Your task to perform on an android device: delete location history Image 0: 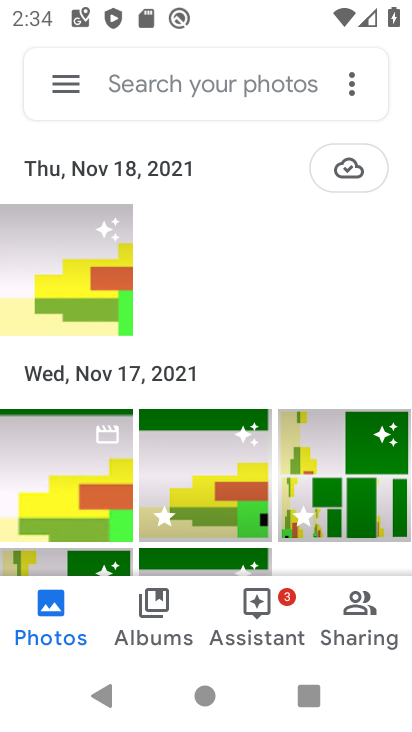
Step 0: press home button
Your task to perform on an android device: delete location history Image 1: 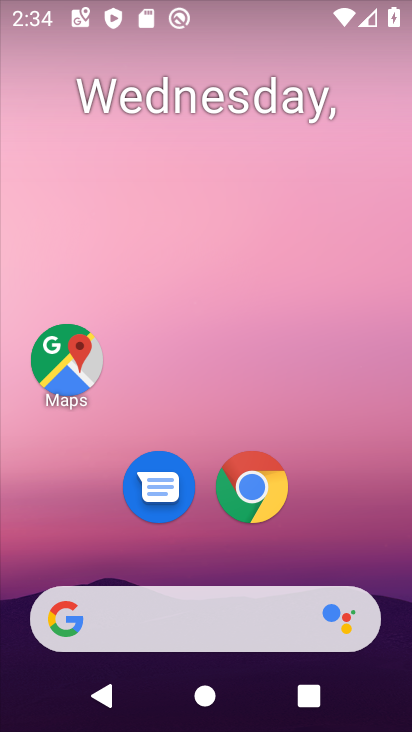
Step 1: drag from (363, 516) to (274, 172)
Your task to perform on an android device: delete location history Image 2: 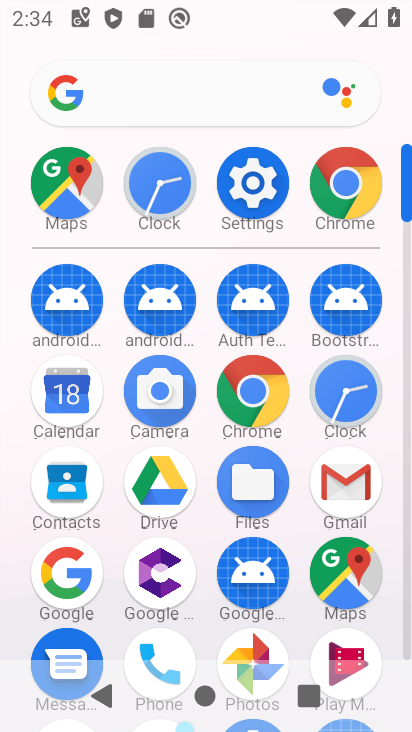
Step 2: click (63, 183)
Your task to perform on an android device: delete location history Image 3: 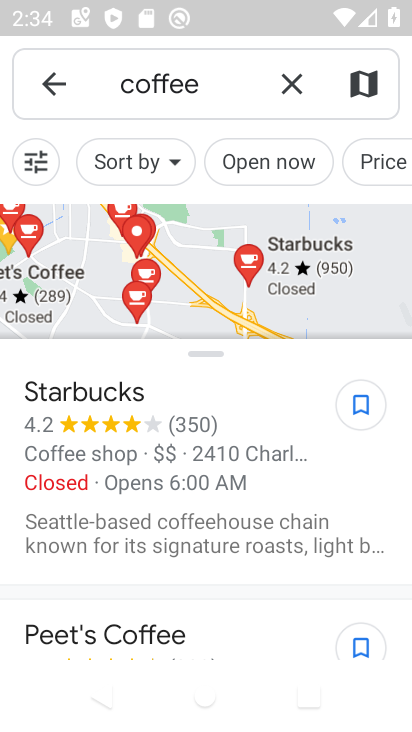
Step 3: click (291, 77)
Your task to perform on an android device: delete location history Image 4: 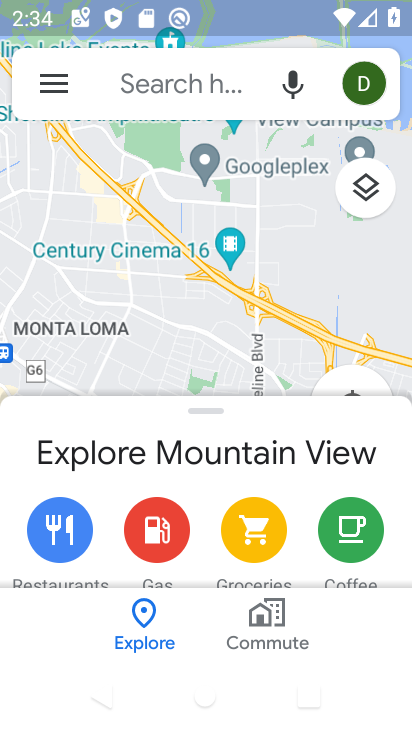
Step 4: click (38, 89)
Your task to perform on an android device: delete location history Image 5: 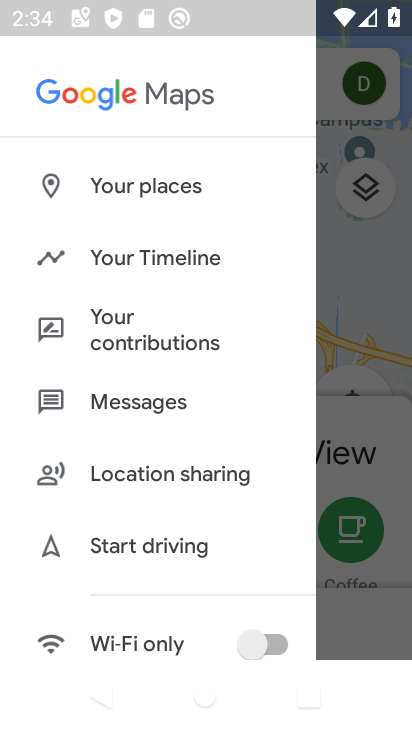
Step 5: click (122, 246)
Your task to perform on an android device: delete location history Image 6: 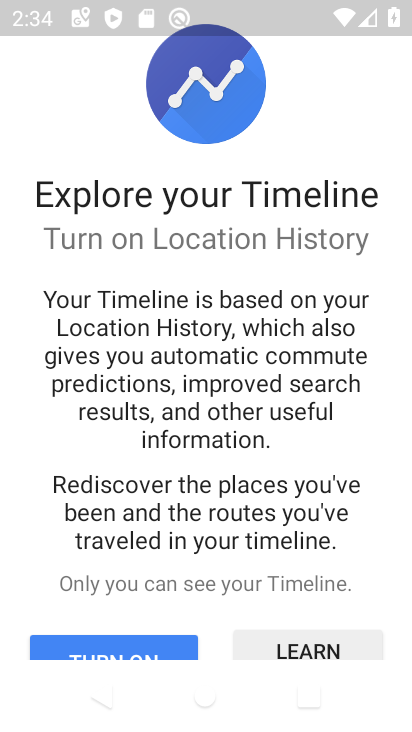
Step 6: drag from (297, 538) to (217, 153)
Your task to perform on an android device: delete location history Image 7: 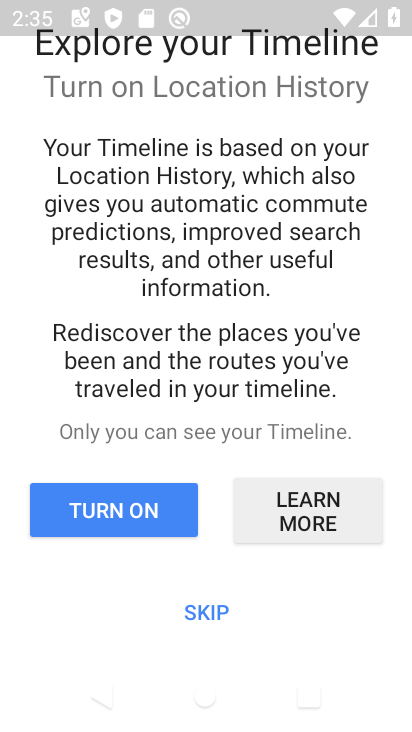
Step 7: click (130, 508)
Your task to perform on an android device: delete location history Image 8: 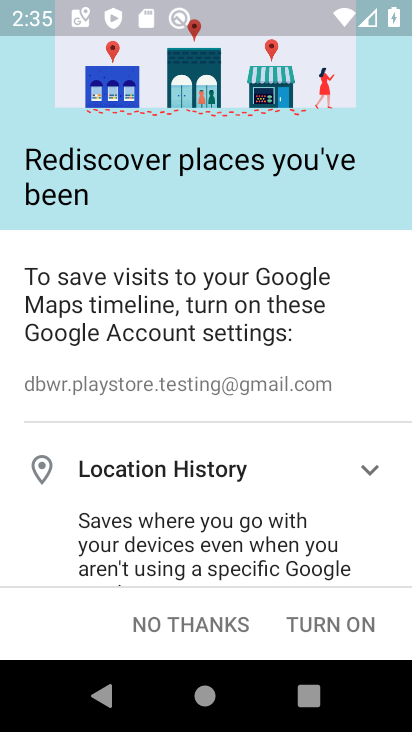
Step 8: drag from (288, 494) to (275, 14)
Your task to perform on an android device: delete location history Image 9: 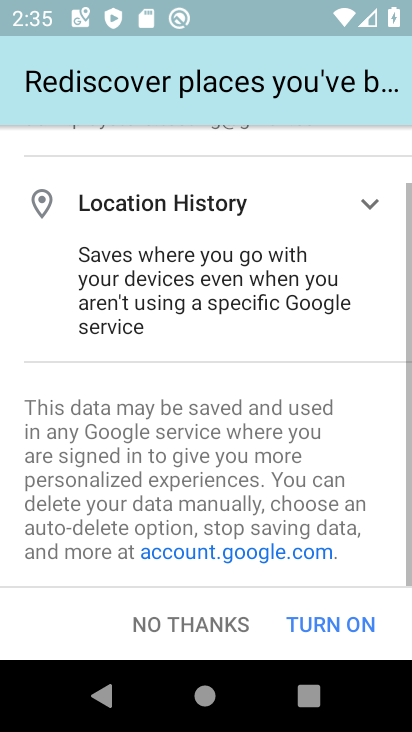
Step 9: drag from (298, 425) to (284, 194)
Your task to perform on an android device: delete location history Image 10: 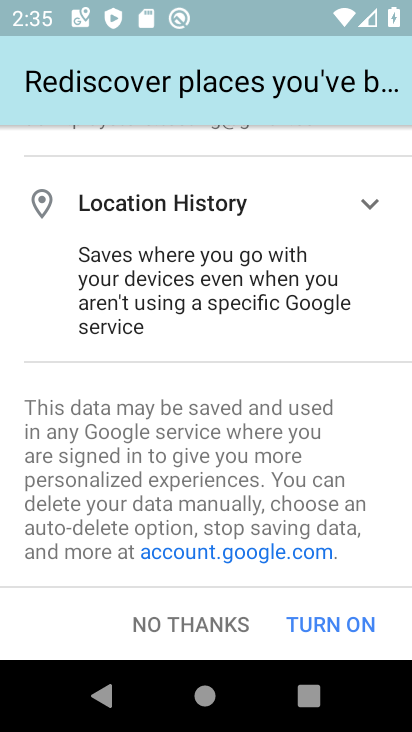
Step 10: click (196, 616)
Your task to perform on an android device: delete location history Image 11: 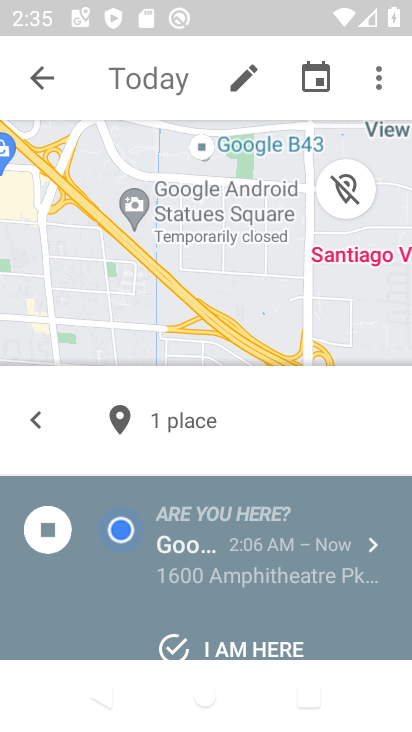
Step 11: click (377, 78)
Your task to perform on an android device: delete location history Image 12: 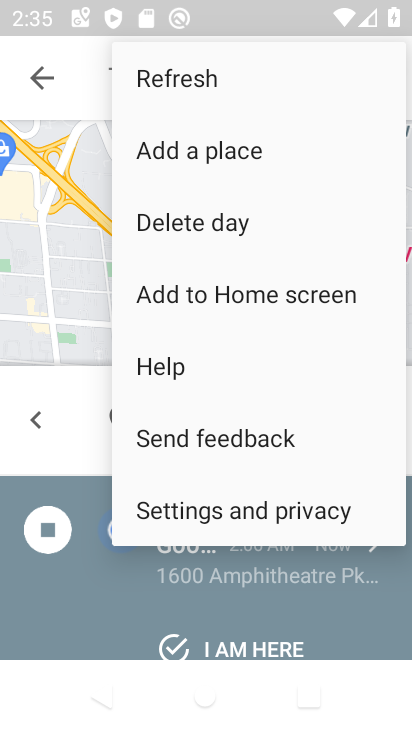
Step 12: click (268, 526)
Your task to perform on an android device: delete location history Image 13: 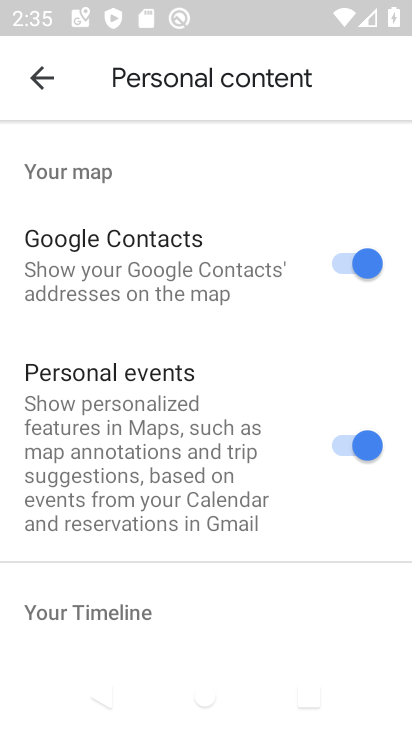
Step 13: drag from (293, 527) to (270, 168)
Your task to perform on an android device: delete location history Image 14: 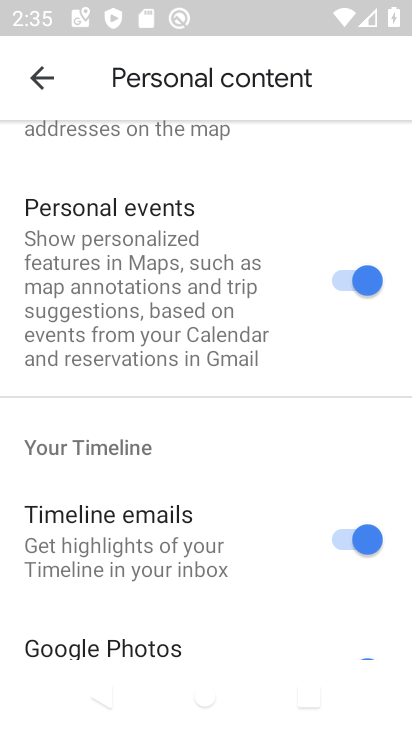
Step 14: drag from (259, 434) to (225, 14)
Your task to perform on an android device: delete location history Image 15: 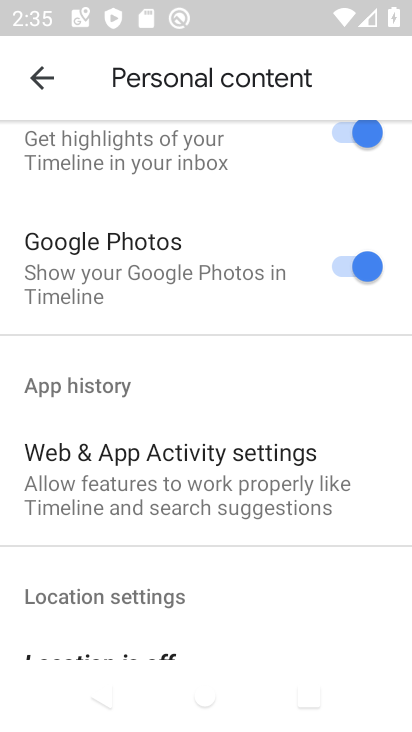
Step 15: drag from (198, 542) to (205, 182)
Your task to perform on an android device: delete location history Image 16: 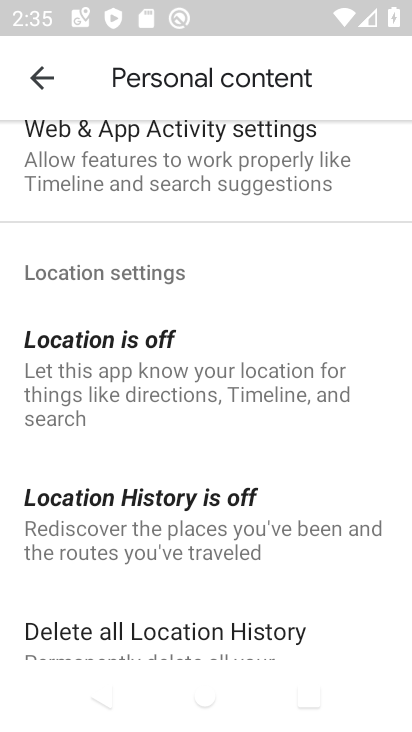
Step 16: drag from (171, 449) to (165, 174)
Your task to perform on an android device: delete location history Image 17: 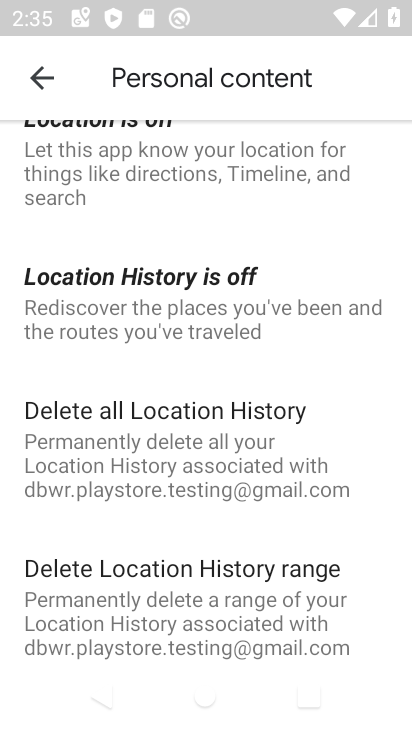
Step 17: click (138, 397)
Your task to perform on an android device: delete location history Image 18: 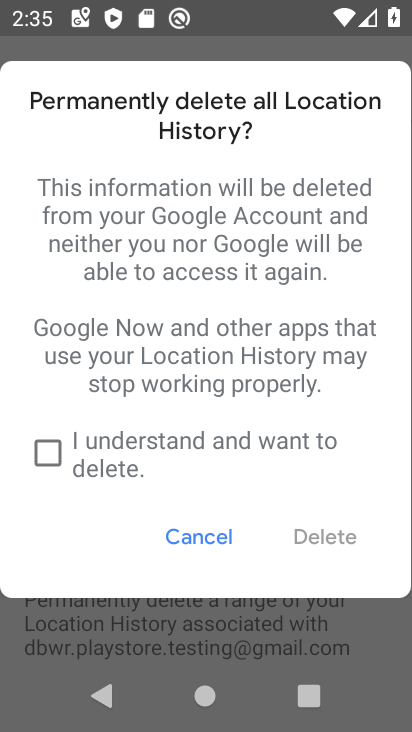
Step 18: click (43, 451)
Your task to perform on an android device: delete location history Image 19: 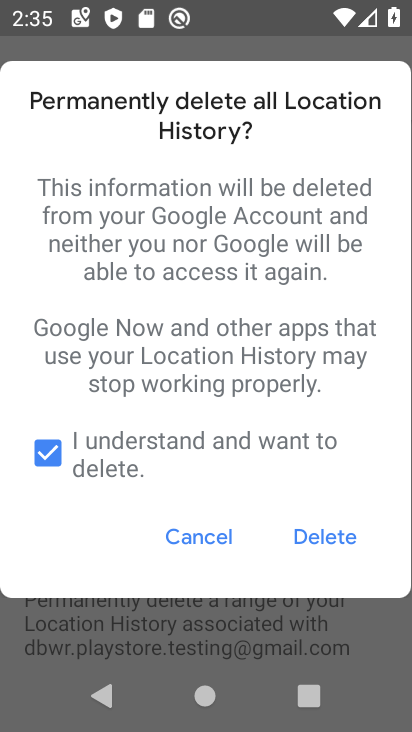
Step 19: click (321, 540)
Your task to perform on an android device: delete location history Image 20: 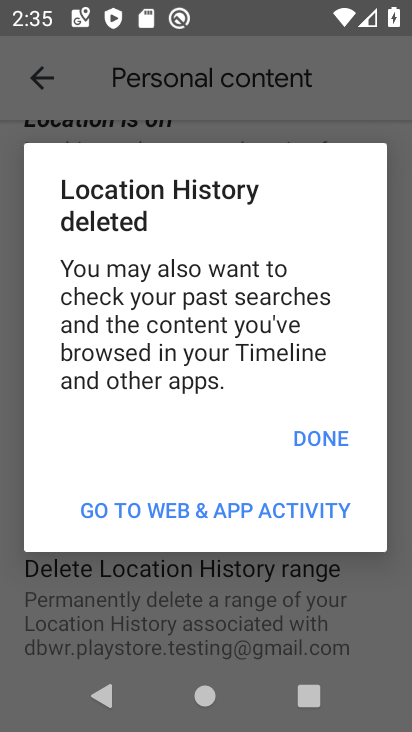
Step 20: click (337, 443)
Your task to perform on an android device: delete location history Image 21: 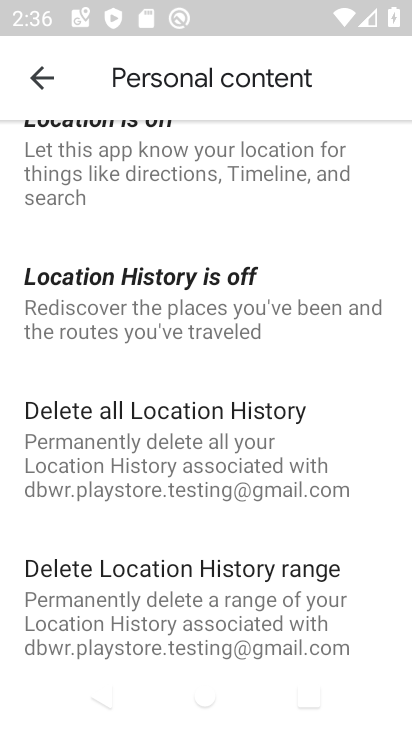
Step 21: task complete